Your task to perform on an android device: toggle priority inbox in the gmail app Image 0: 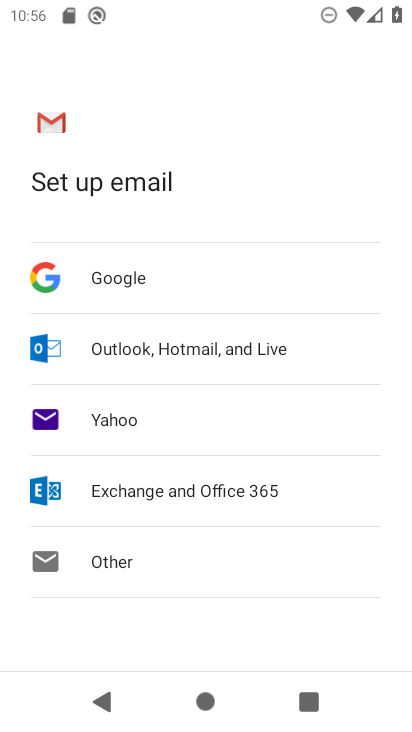
Step 0: press home button
Your task to perform on an android device: toggle priority inbox in the gmail app Image 1: 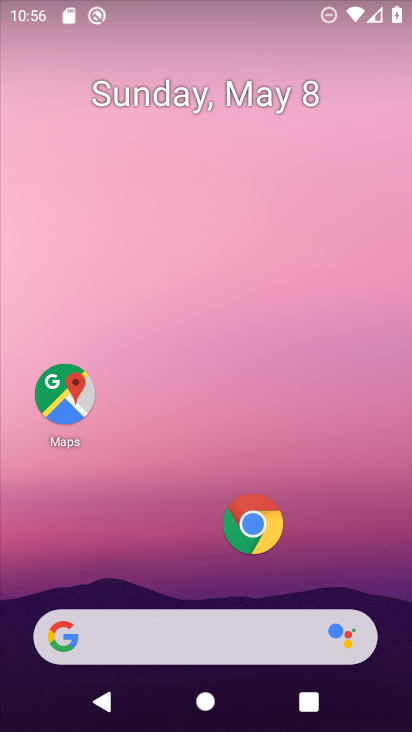
Step 1: drag from (193, 449) to (215, 112)
Your task to perform on an android device: toggle priority inbox in the gmail app Image 2: 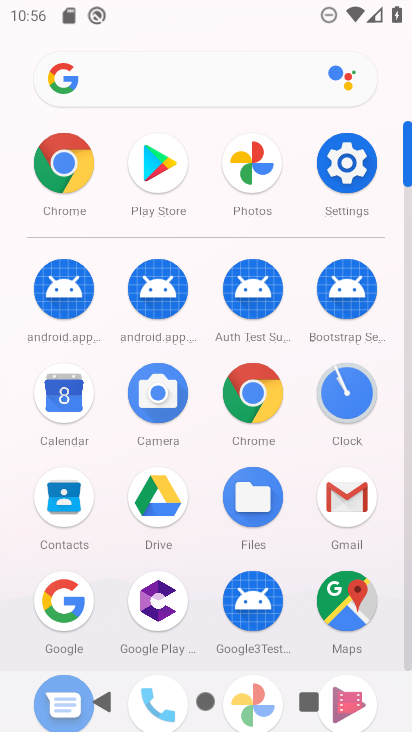
Step 2: click (353, 494)
Your task to perform on an android device: toggle priority inbox in the gmail app Image 3: 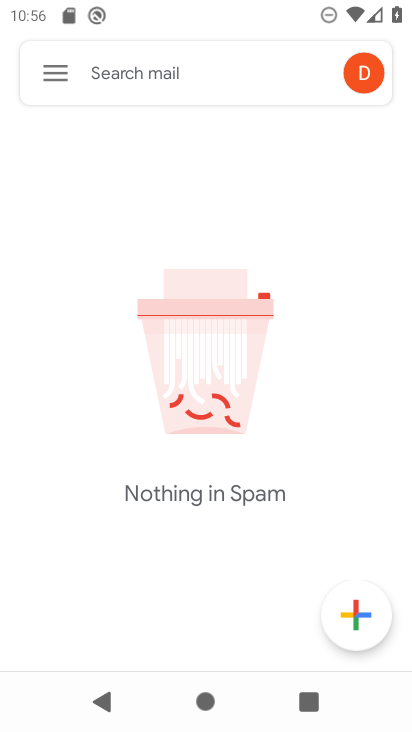
Step 3: click (54, 75)
Your task to perform on an android device: toggle priority inbox in the gmail app Image 4: 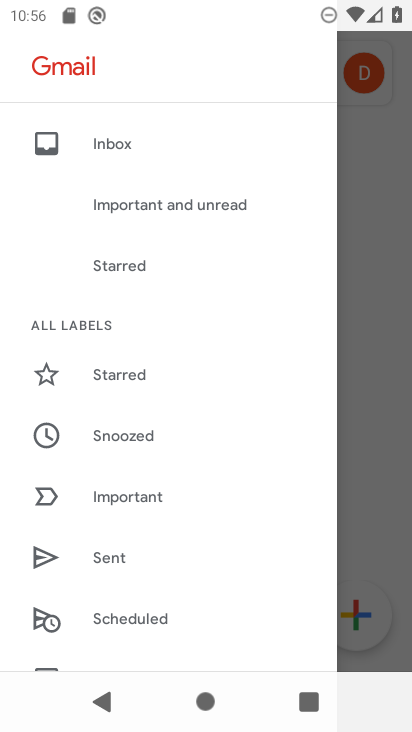
Step 4: drag from (175, 547) to (199, 73)
Your task to perform on an android device: toggle priority inbox in the gmail app Image 5: 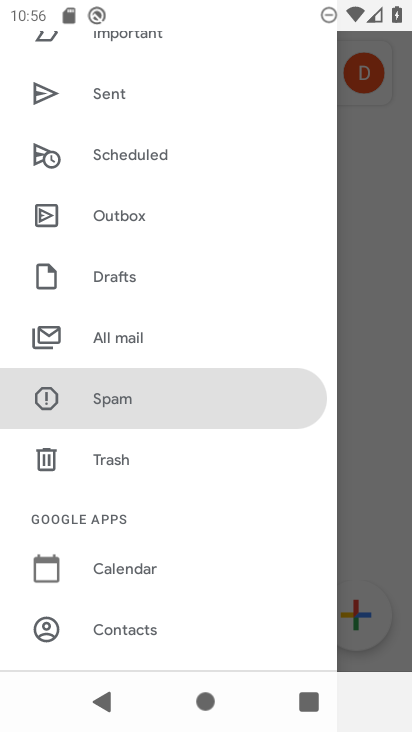
Step 5: drag from (170, 611) to (197, 304)
Your task to perform on an android device: toggle priority inbox in the gmail app Image 6: 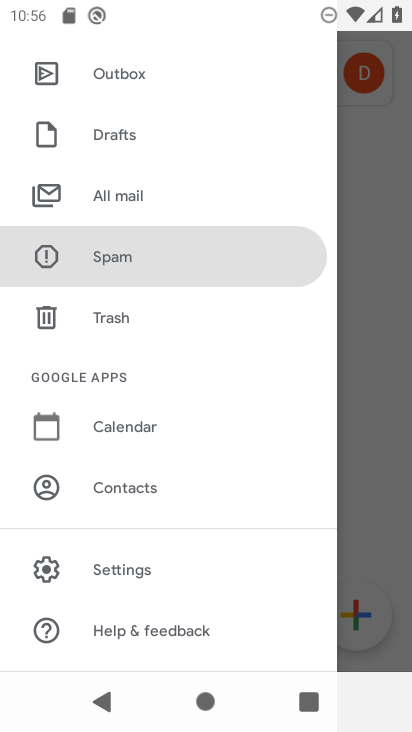
Step 6: click (135, 564)
Your task to perform on an android device: toggle priority inbox in the gmail app Image 7: 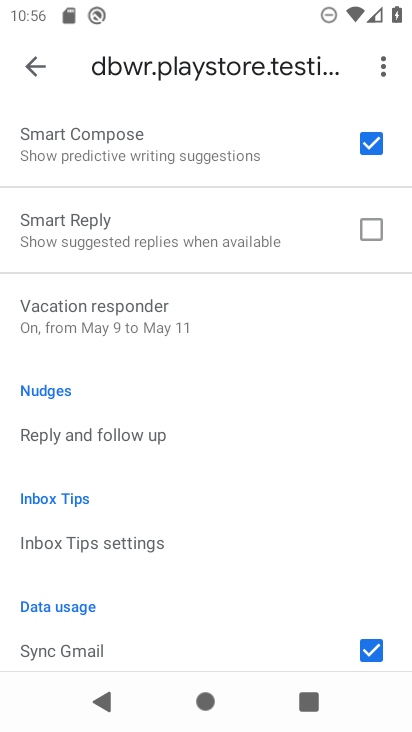
Step 7: drag from (196, 343) to (210, 692)
Your task to perform on an android device: toggle priority inbox in the gmail app Image 8: 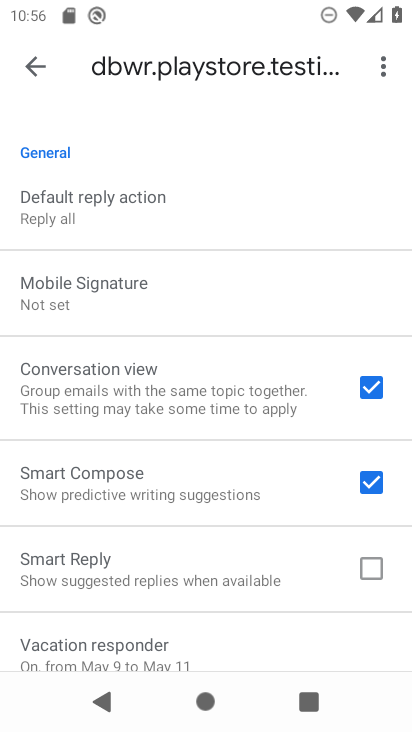
Step 8: drag from (156, 174) to (246, 589)
Your task to perform on an android device: toggle priority inbox in the gmail app Image 9: 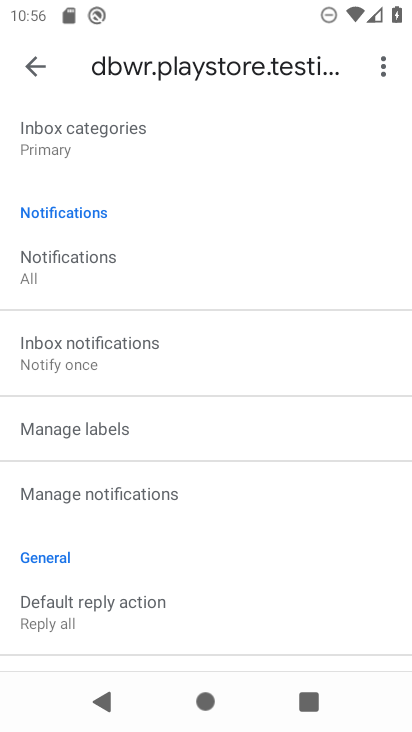
Step 9: drag from (218, 205) to (293, 633)
Your task to perform on an android device: toggle priority inbox in the gmail app Image 10: 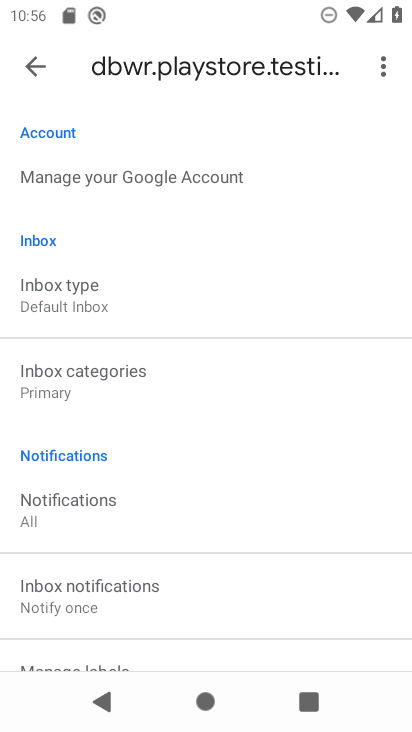
Step 10: click (59, 272)
Your task to perform on an android device: toggle priority inbox in the gmail app Image 11: 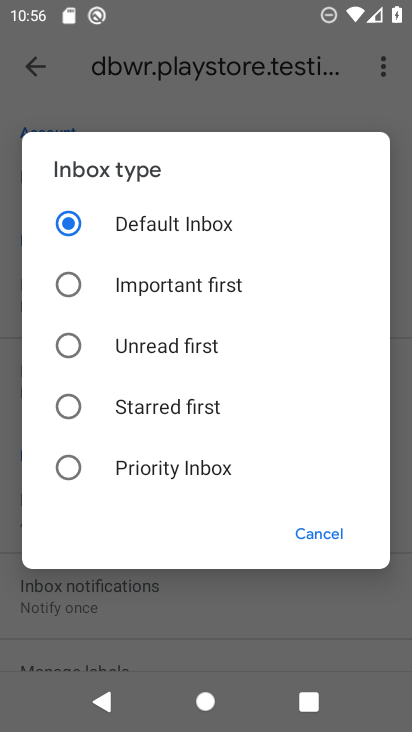
Step 11: click (69, 461)
Your task to perform on an android device: toggle priority inbox in the gmail app Image 12: 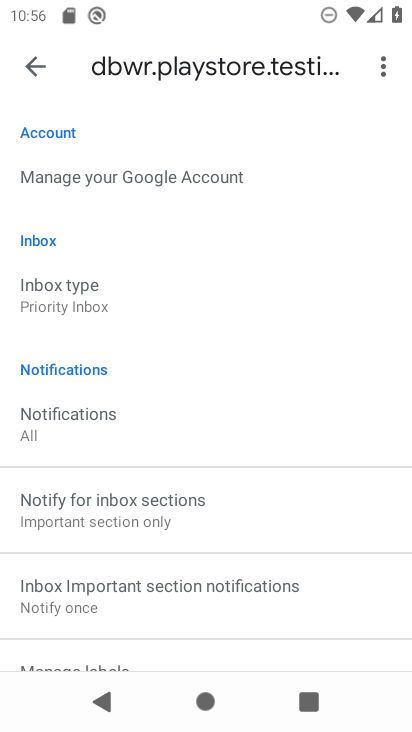
Step 12: task complete